Your task to perform on an android device: Open Chrome and go to settings Image 0: 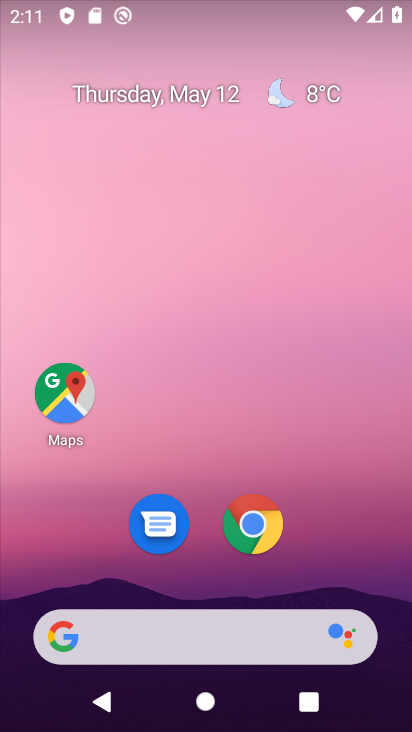
Step 0: click (259, 517)
Your task to perform on an android device: Open Chrome and go to settings Image 1: 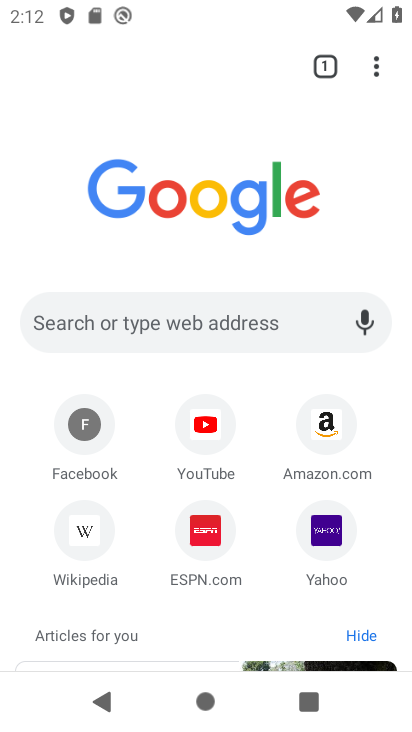
Step 1: click (374, 69)
Your task to perform on an android device: Open Chrome and go to settings Image 2: 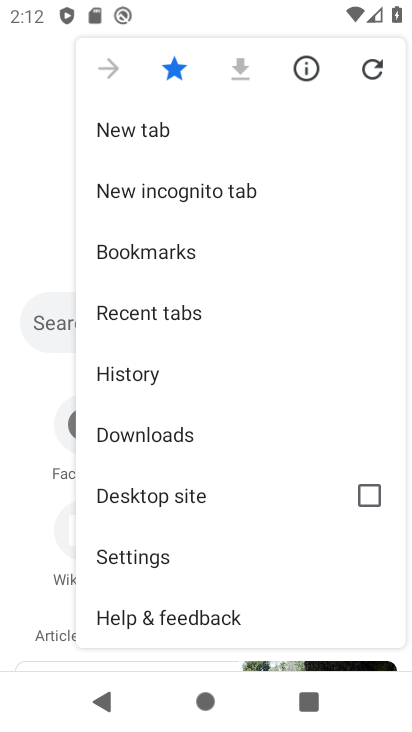
Step 2: click (166, 549)
Your task to perform on an android device: Open Chrome and go to settings Image 3: 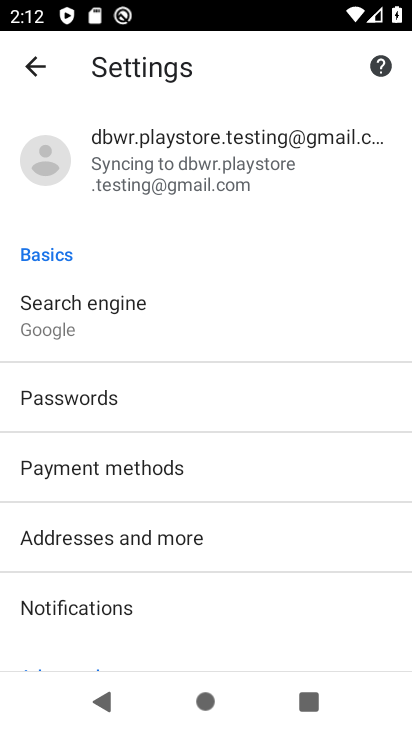
Step 3: task complete